Your task to perform on an android device: turn off notifications settings in the gmail app Image 0: 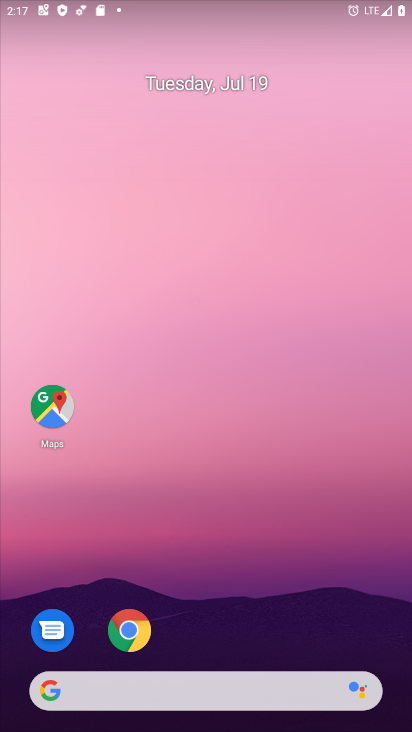
Step 0: drag from (217, 652) to (246, 29)
Your task to perform on an android device: turn off notifications settings in the gmail app Image 1: 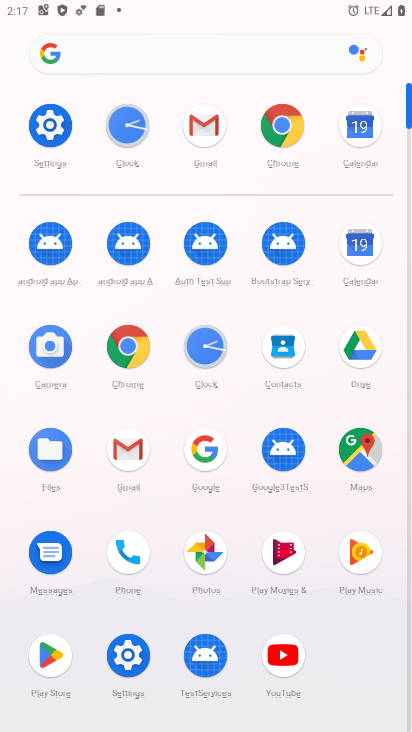
Step 1: click (127, 440)
Your task to perform on an android device: turn off notifications settings in the gmail app Image 2: 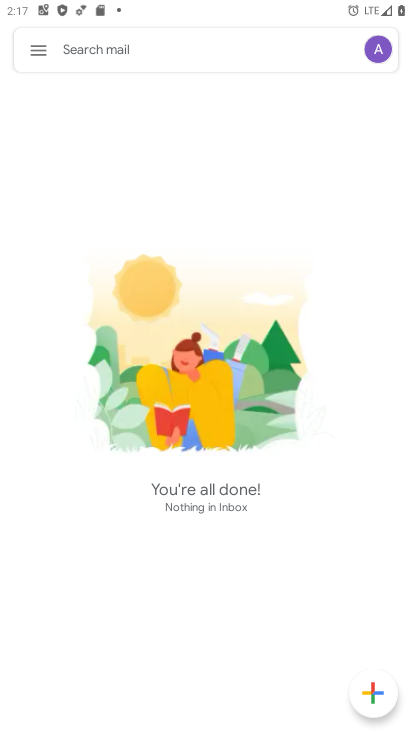
Step 2: click (34, 50)
Your task to perform on an android device: turn off notifications settings in the gmail app Image 3: 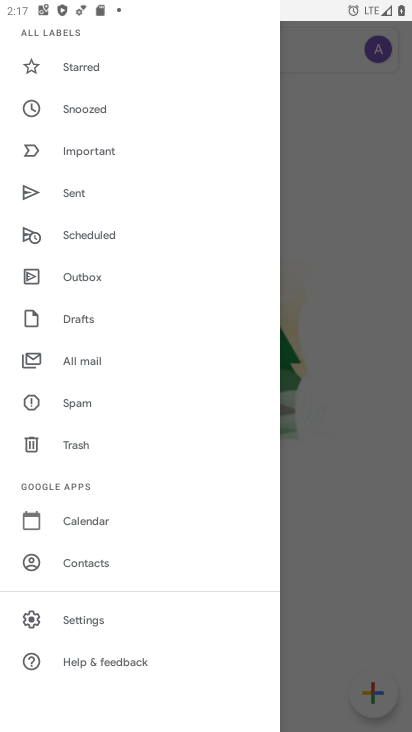
Step 3: click (110, 615)
Your task to perform on an android device: turn off notifications settings in the gmail app Image 4: 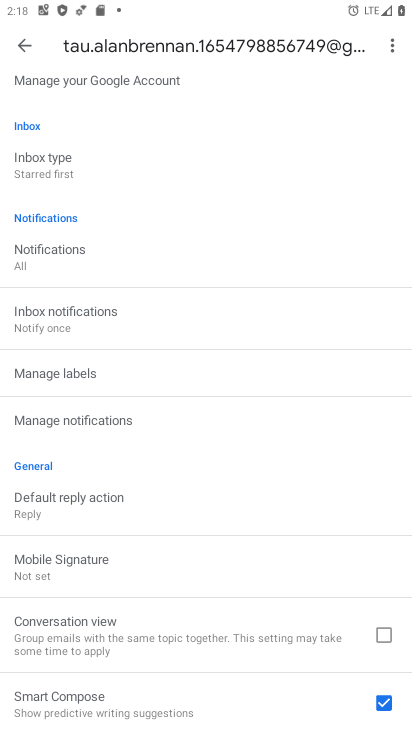
Step 4: click (24, 45)
Your task to perform on an android device: turn off notifications settings in the gmail app Image 5: 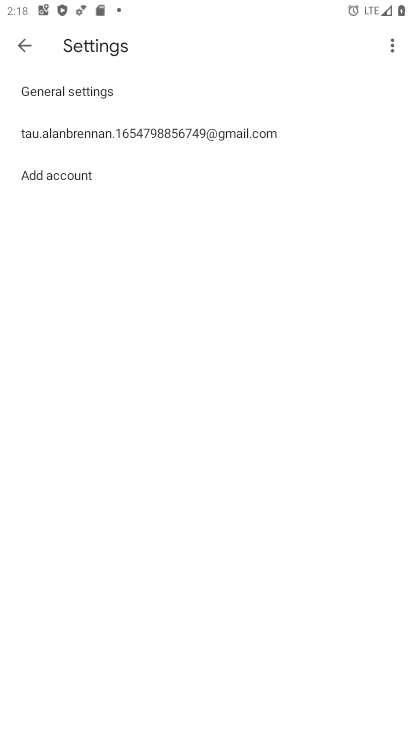
Step 5: click (118, 89)
Your task to perform on an android device: turn off notifications settings in the gmail app Image 6: 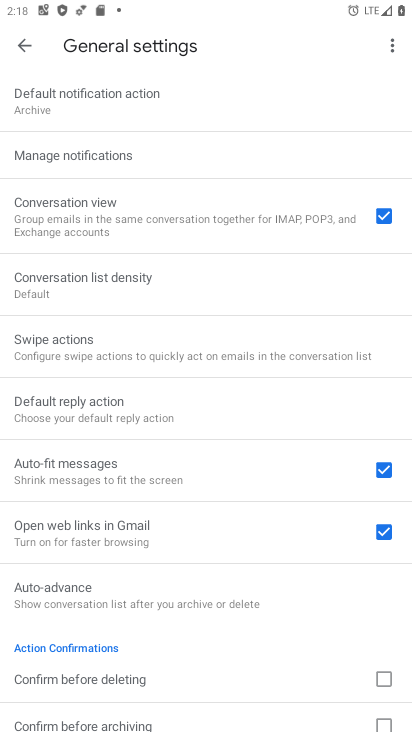
Step 6: click (159, 154)
Your task to perform on an android device: turn off notifications settings in the gmail app Image 7: 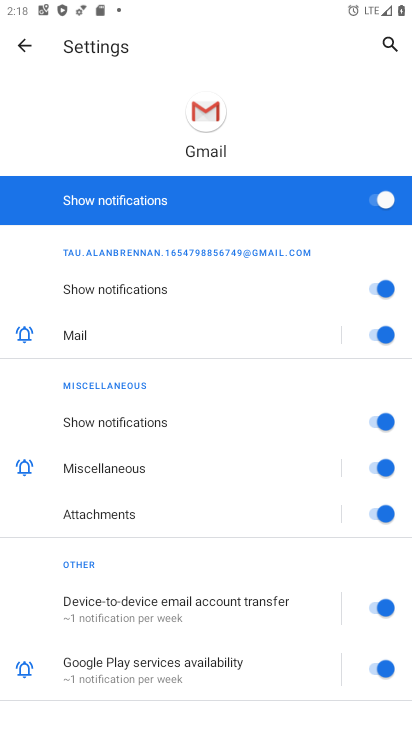
Step 7: click (379, 194)
Your task to perform on an android device: turn off notifications settings in the gmail app Image 8: 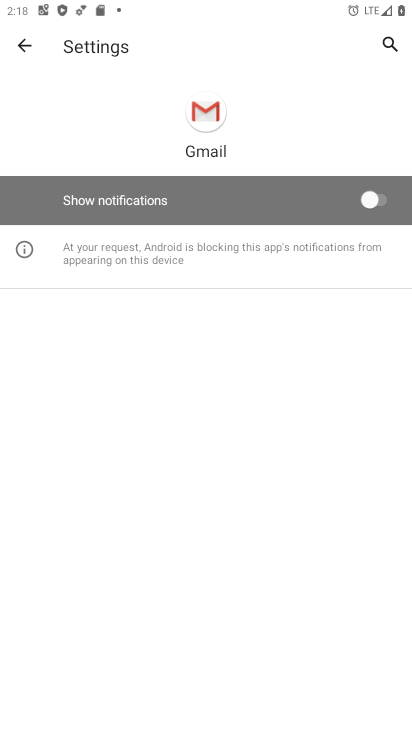
Step 8: task complete